Your task to perform on an android device: check android version Image 0: 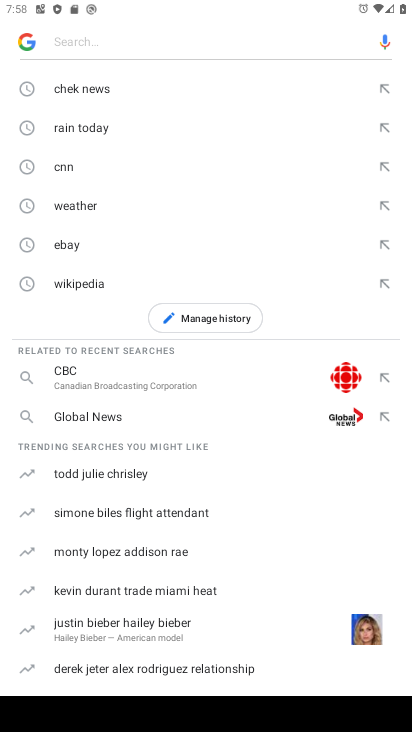
Step 0: press home button
Your task to perform on an android device: check android version Image 1: 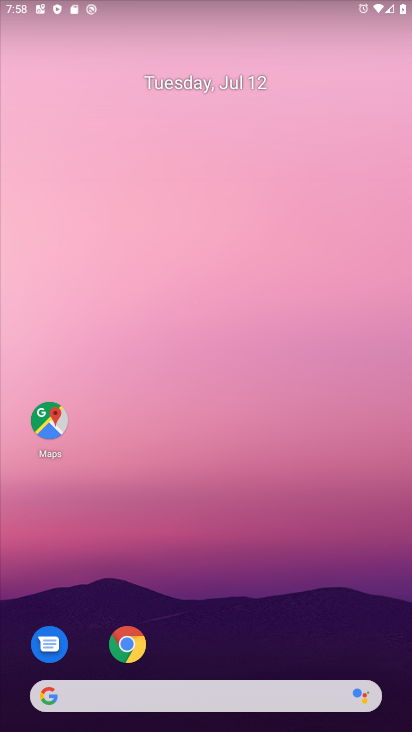
Step 1: drag from (147, 652) to (236, 221)
Your task to perform on an android device: check android version Image 2: 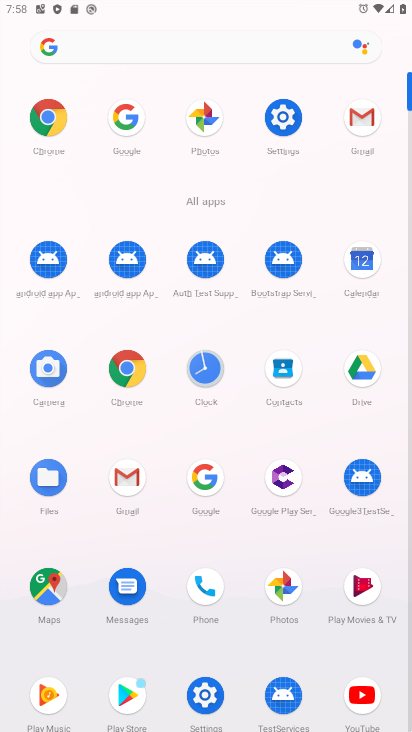
Step 2: click (218, 698)
Your task to perform on an android device: check android version Image 3: 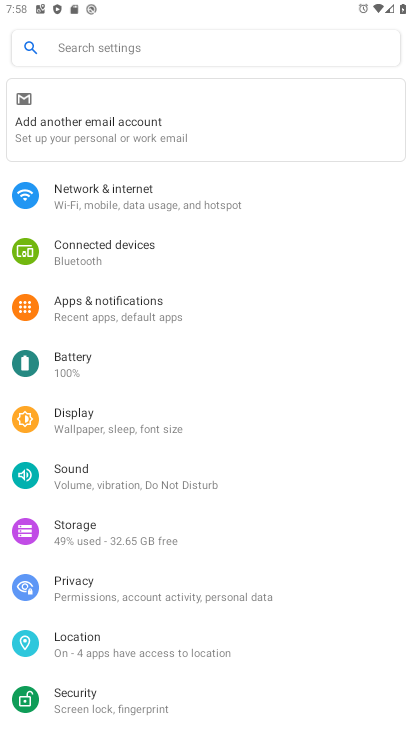
Step 3: drag from (215, 698) to (284, 325)
Your task to perform on an android device: check android version Image 4: 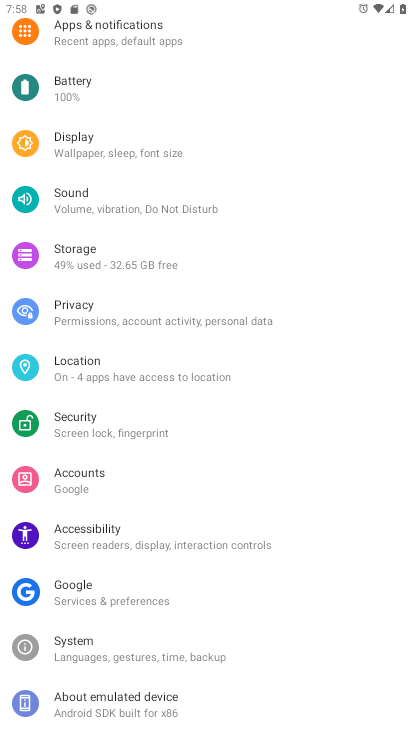
Step 4: click (134, 695)
Your task to perform on an android device: check android version Image 5: 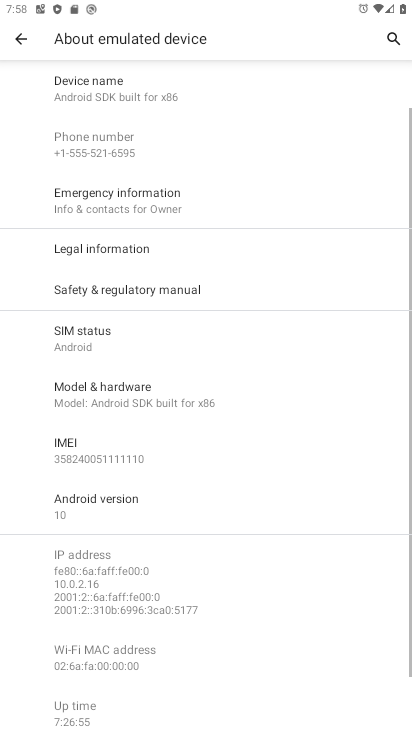
Step 5: drag from (115, 667) to (201, 348)
Your task to perform on an android device: check android version Image 6: 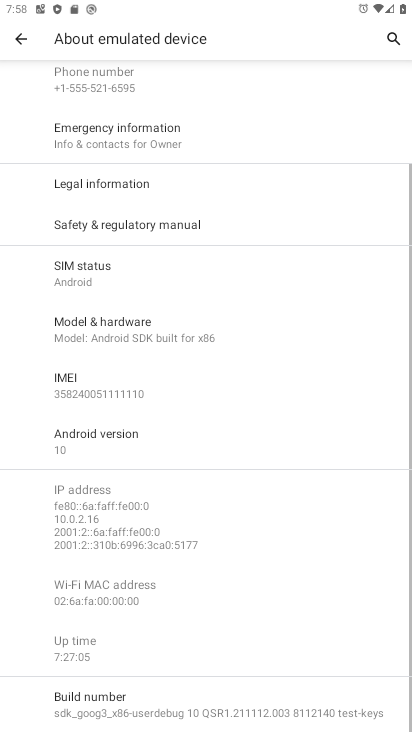
Step 6: click (116, 437)
Your task to perform on an android device: check android version Image 7: 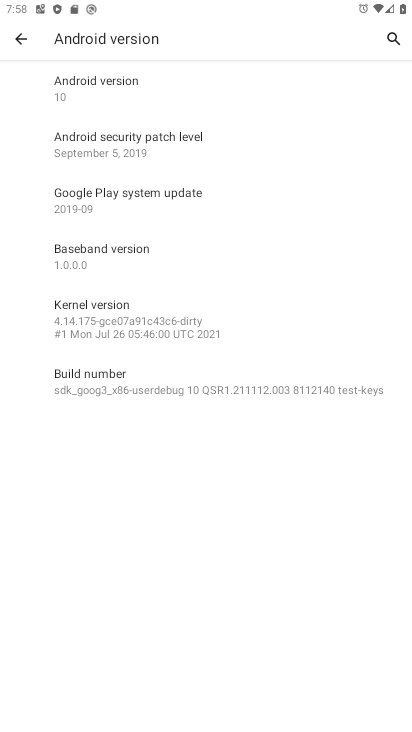
Step 7: task complete